Your task to perform on an android device: Open accessibility settings Image 0: 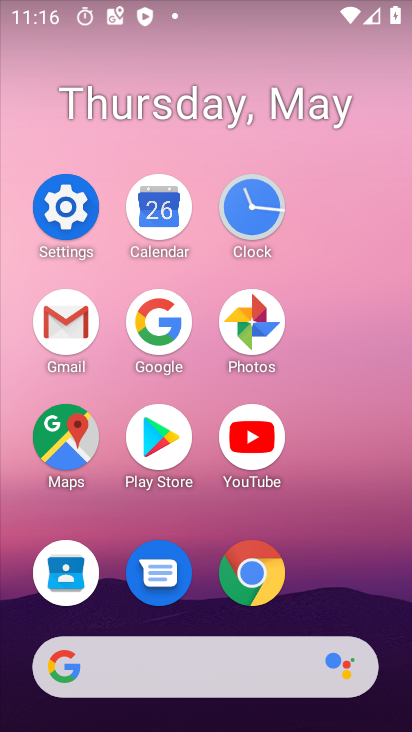
Step 0: click (69, 211)
Your task to perform on an android device: Open accessibility settings Image 1: 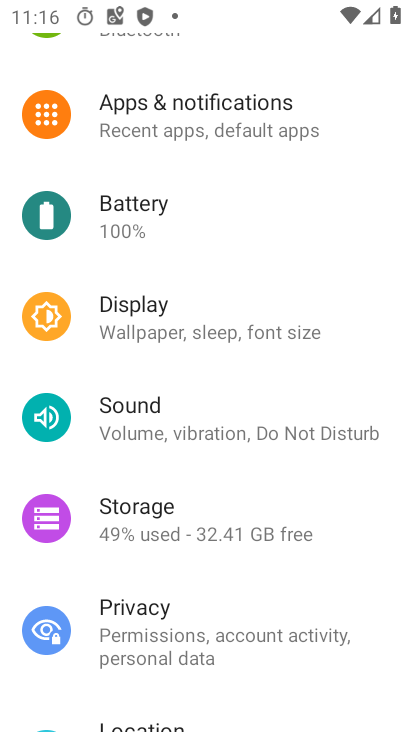
Step 1: drag from (244, 570) to (242, 210)
Your task to perform on an android device: Open accessibility settings Image 2: 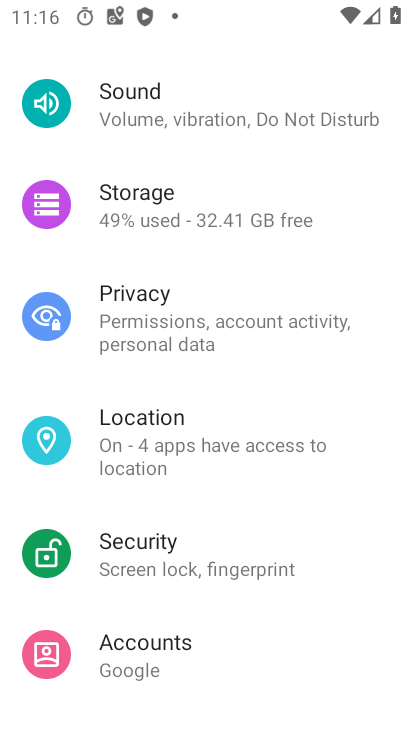
Step 2: drag from (262, 552) to (261, 272)
Your task to perform on an android device: Open accessibility settings Image 3: 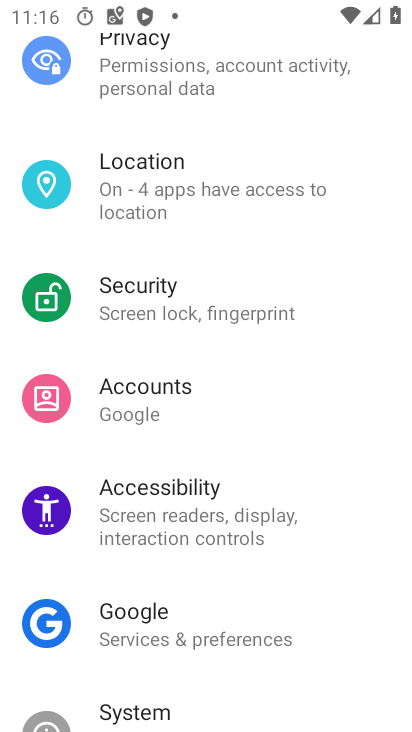
Step 3: click (210, 506)
Your task to perform on an android device: Open accessibility settings Image 4: 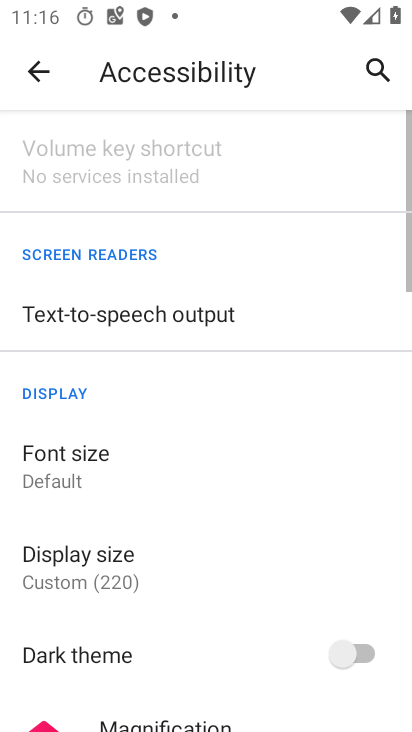
Step 4: task complete